Your task to perform on an android device: Go to ESPN.com Image 0: 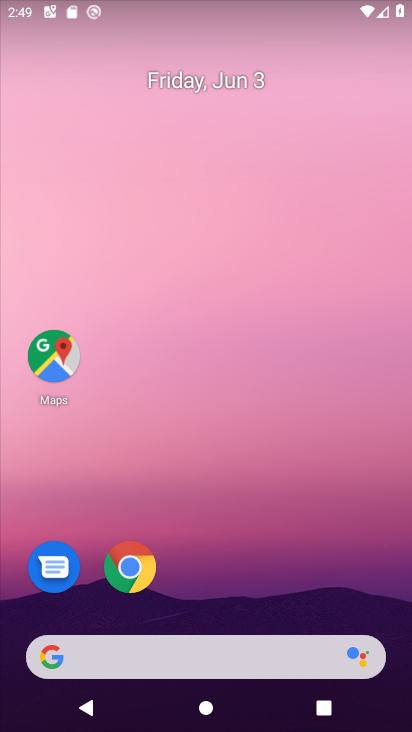
Step 0: click (133, 560)
Your task to perform on an android device: Go to ESPN.com Image 1: 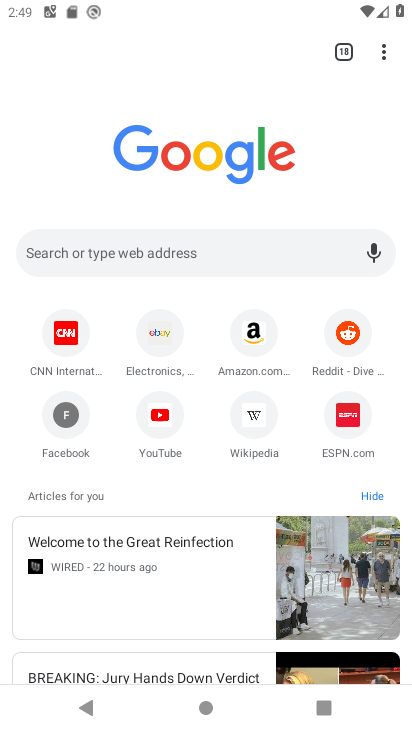
Step 1: click (239, 247)
Your task to perform on an android device: Go to ESPN.com Image 2: 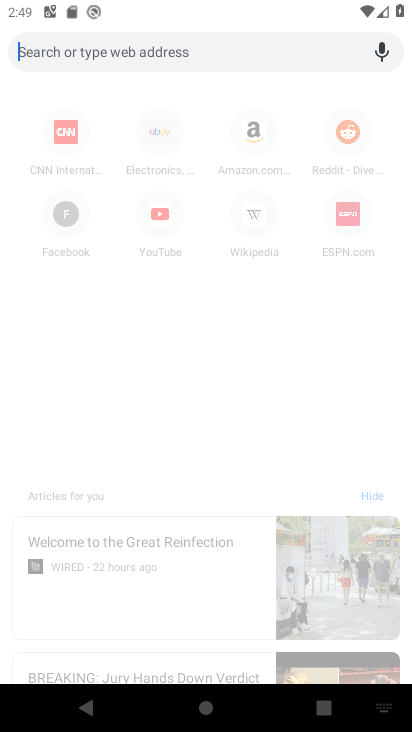
Step 2: type " ESPN.com"
Your task to perform on an android device: Go to ESPN.com Image 3: 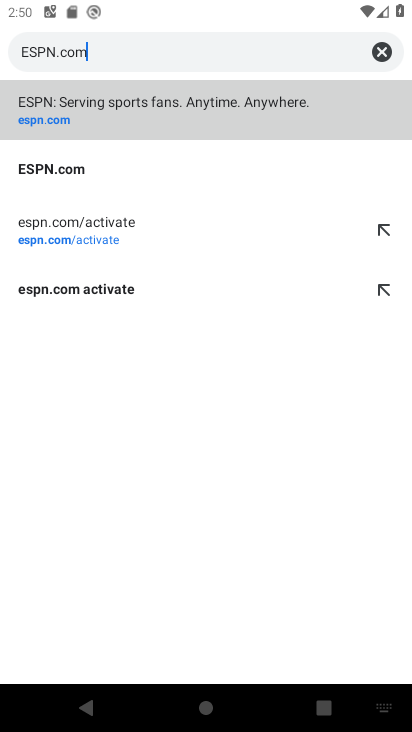
Step 3: click (286, 107)
Your task to perform on an android device: Go to ESPN.com Image 4: 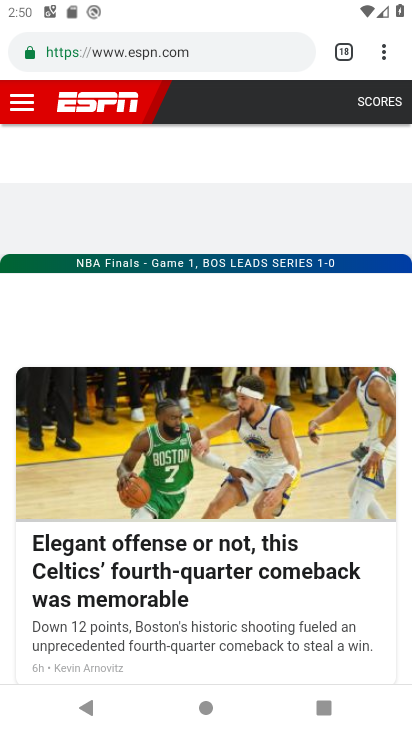
Step 4: task complete